Your task to perform on an android device: find photos in the google photos app Image 0: 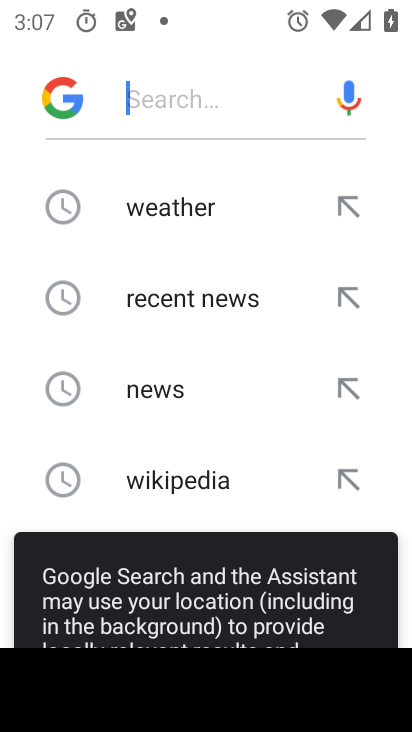
Step 0: press home button
Your task to perform on an android device: find photos in the google photos app Image 1: 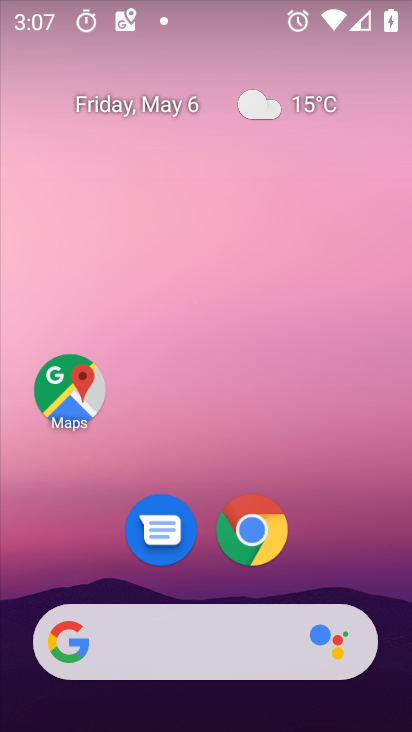
Step 1: drag from (374, 498) to (288, 9)
Your task to perform on an android device: find photos in the google photos app Image 2: 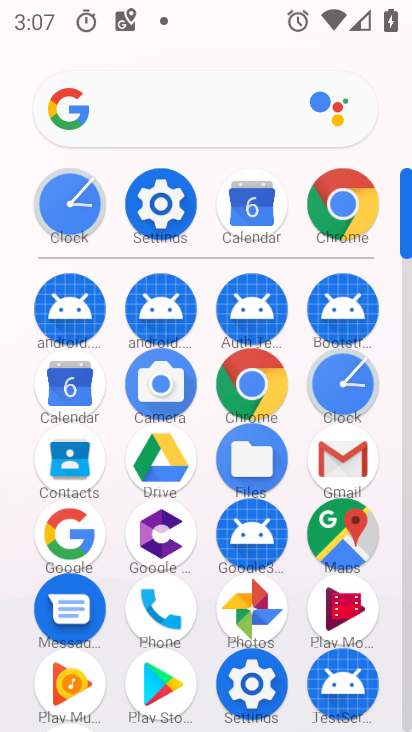
Step 2: click (256, 617)
Your task to perform on an android device: find photos in the google photos app Image 3: 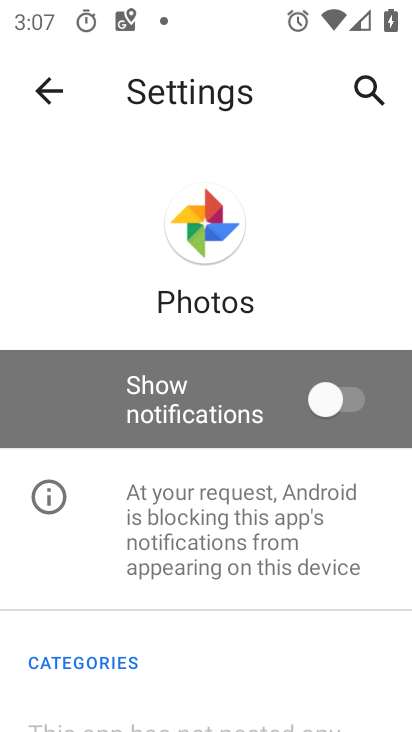
Step 3: click (64, 86)
Your task to perform on an android device: find photos in the google photos app Image 4: 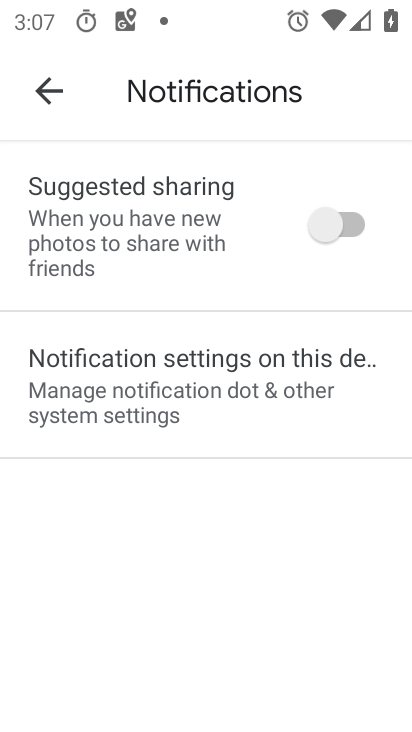
Step 4: click (35, 90)
Your task to perform on an android device: find photos in the google photos app Image 5: 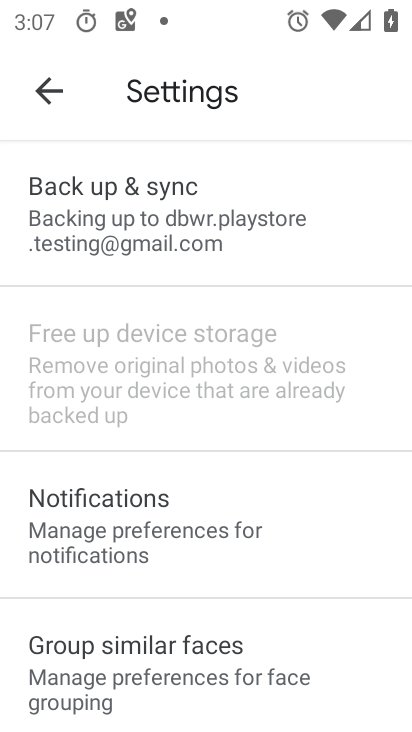
Step 5: click (38, 103)
Your task to perform on an android device: find photos in the google photos app Image 6: 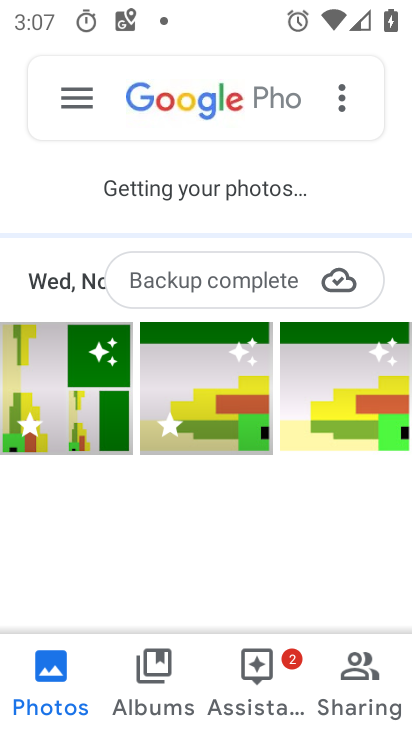
Step 6: click (58, 411)
Your task to perform on an android device: find photos in the google photos app Image 7: 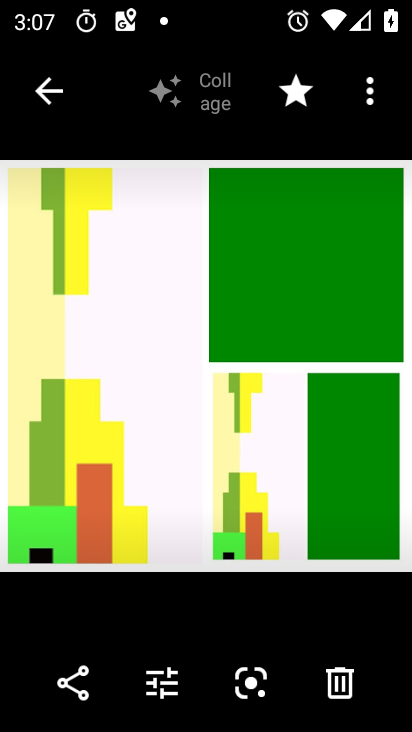
Step 7: task complete